Your task to perform on an android device: empty trash in the gmail app Image 0: 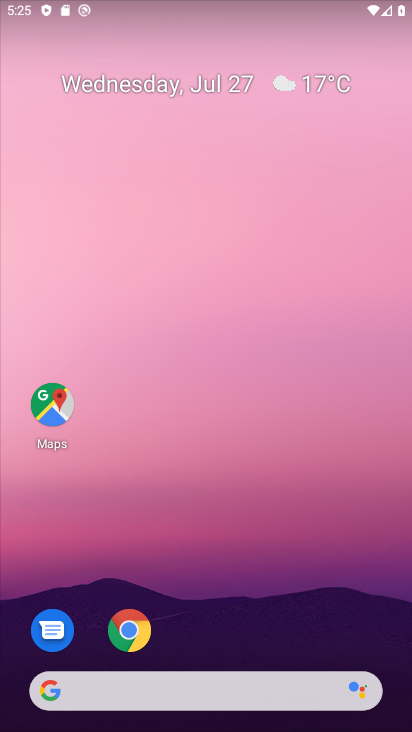
Step 0: press home button
Your task to perform on an android device: empty trash in the gmail app Image 1: 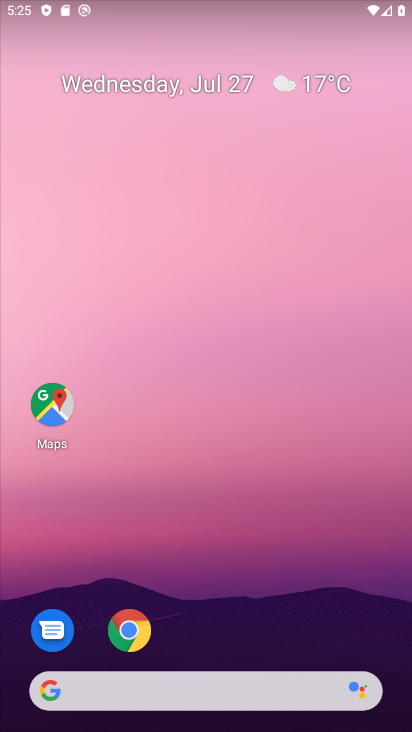
Step 1: drag from (217, 638) to (262, 34)
Your task to perform on an android device: empty trash in the gmail app Image 2: 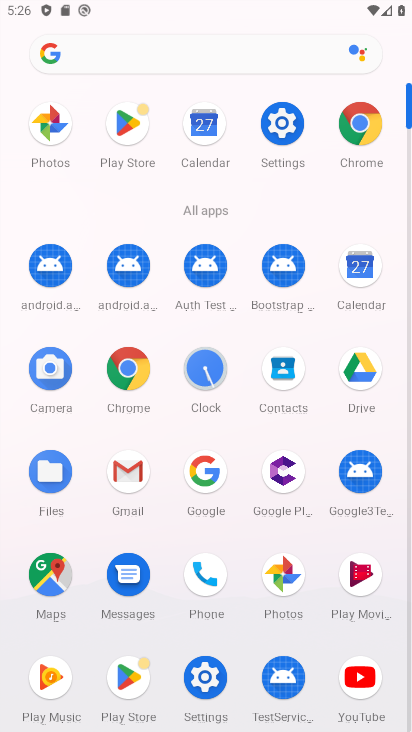
Step 2: click (124, 458)
Your task to perform on an android device: empty trash in the gmail app Image 3: 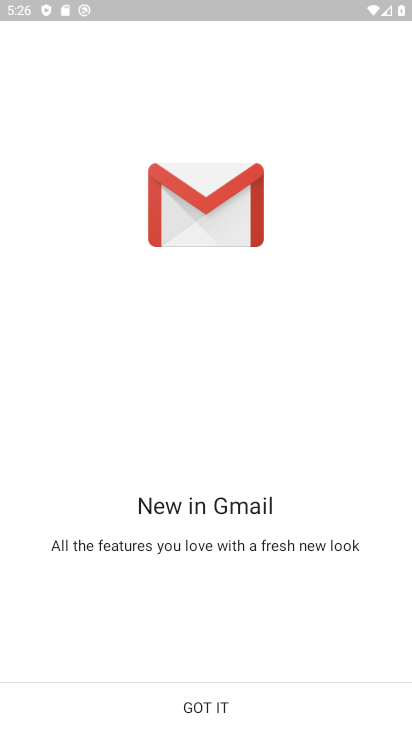
Step 3: click (204, 711)
Your task to perform on an android device: empty trash in the gmail app Image 4: 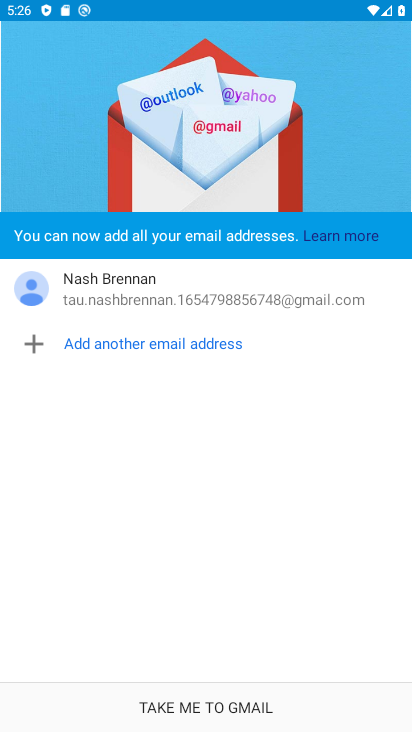
Step 4: click (207, 706)
Your task to perform on an android device: empty trash in the gmail app Image 5: 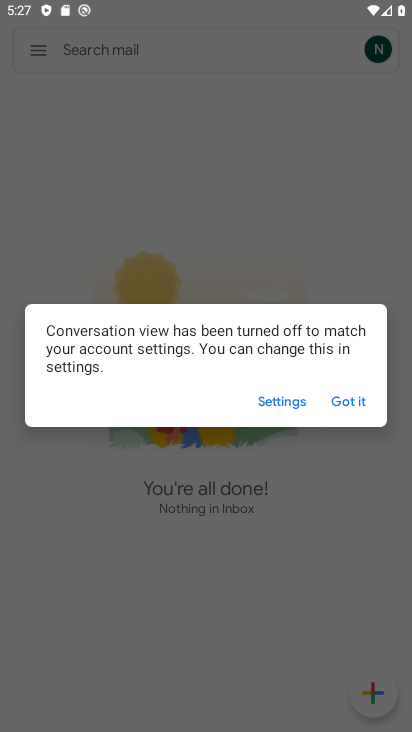
Step 5: click (350, 394)
Your task to perform on an android device: empty trash in the gmail app Image 6: 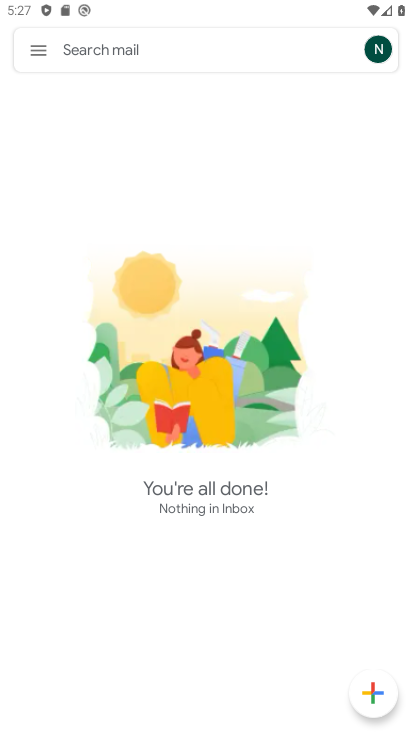
Step 6: click (34, 49)
Your task to perform on an android device: empty trash in the gmail app Image 7: 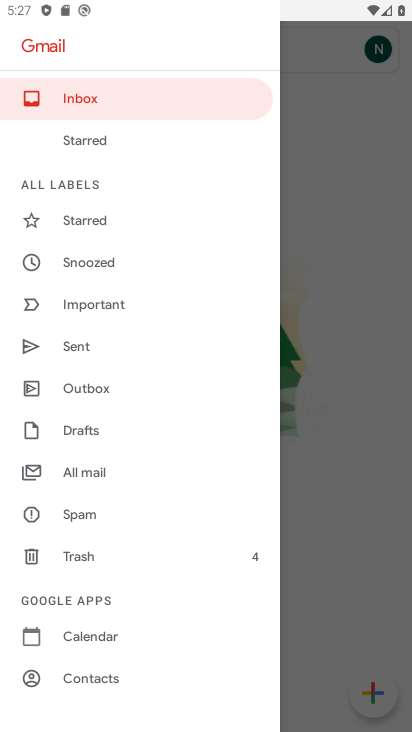
Step 7: click (79, 553)
Your task to perform on an android device: empty trash in the gmail app Image 8: 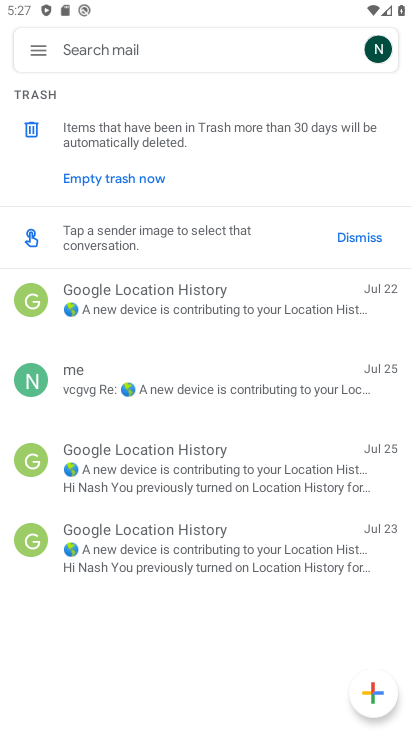
Step 8: click (125, 177)
Your task to perform on an android device: empty trash in the gmail app Image 9: 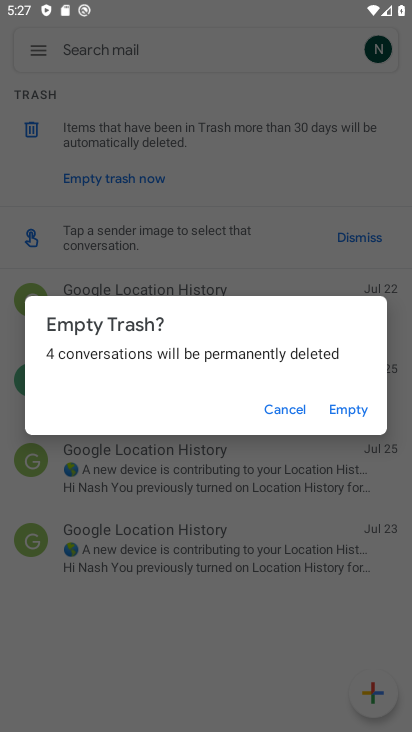
Step 9: click (333, 402)
Your task to perform on an android device: empty trash in the gmail app Image 10: 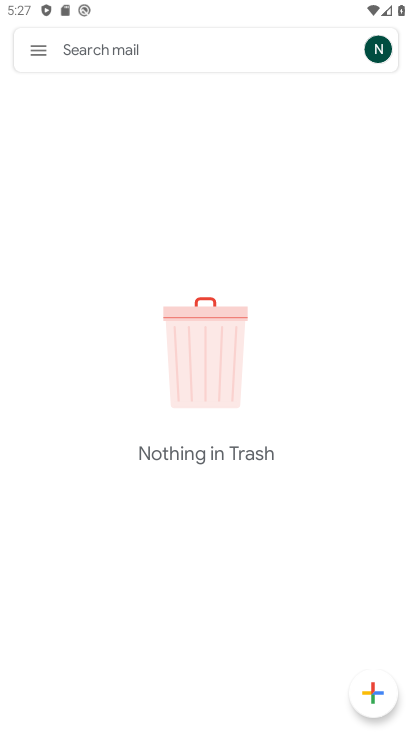
Step 10: task complete